Your task to perform on an android device: turn notification dots off Image 0: 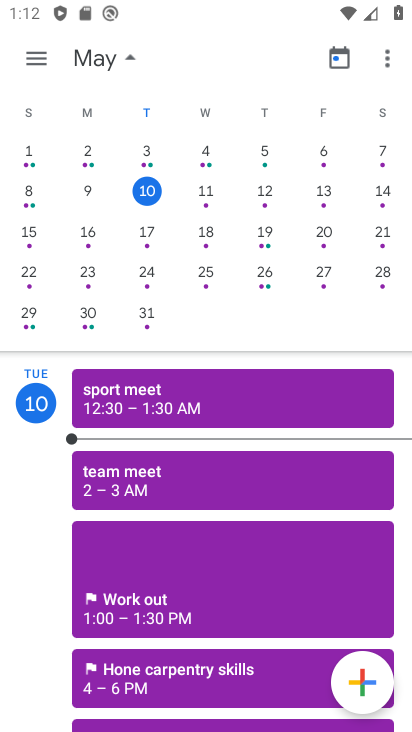
Step 0: press home button
Your task to perform on an android device: turn notification dots off Image 1: 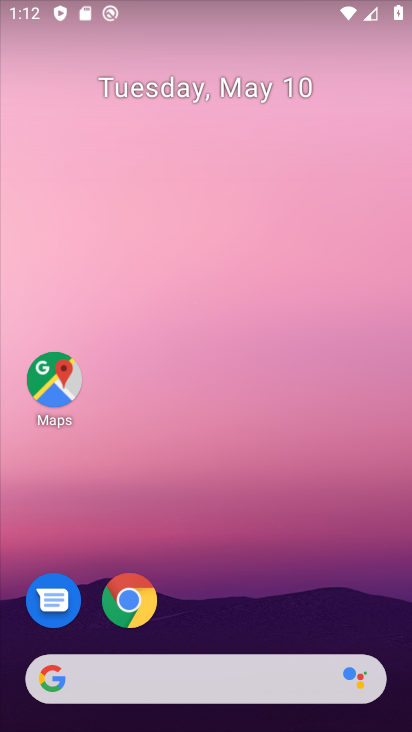
Step 1: drag from (327, 514) to (327, 113)
Your task to perform on an android device: turn notification dots off Image 2: 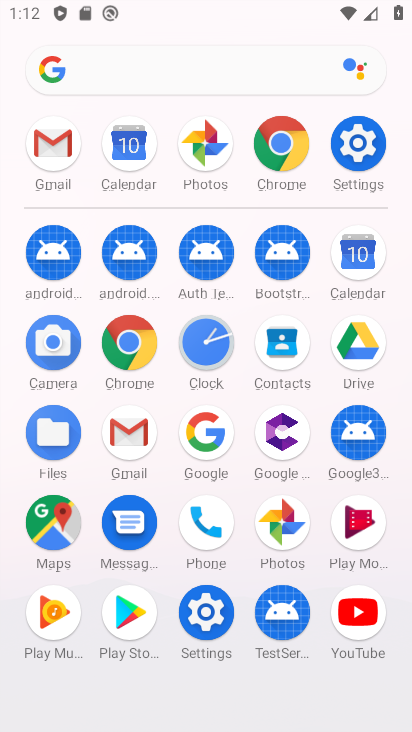
Step 2: click (346, 162)
Your task to perform on an android device: turn notification dots off Image 3: 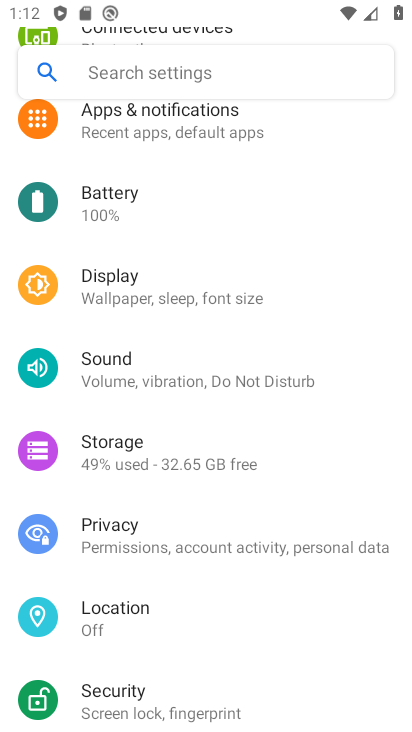
Step 3: drag from (294, 248) to (271, 511)
Your task to perform on an android device: turn notification dots off Image 4: 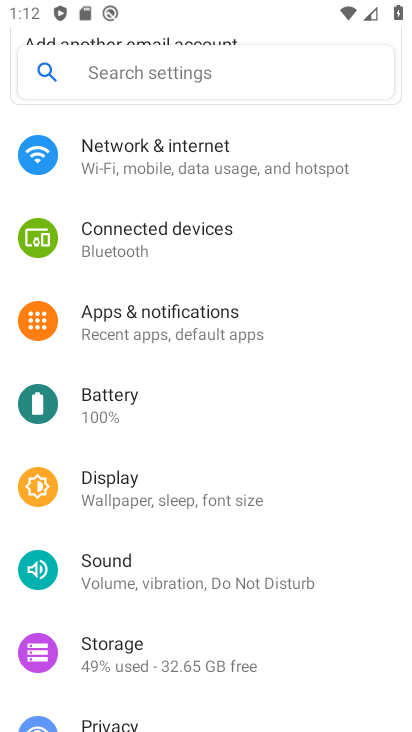
Step 4: click (242, 314)
Your task to perform on an android device: turn notification dots off Image 5: 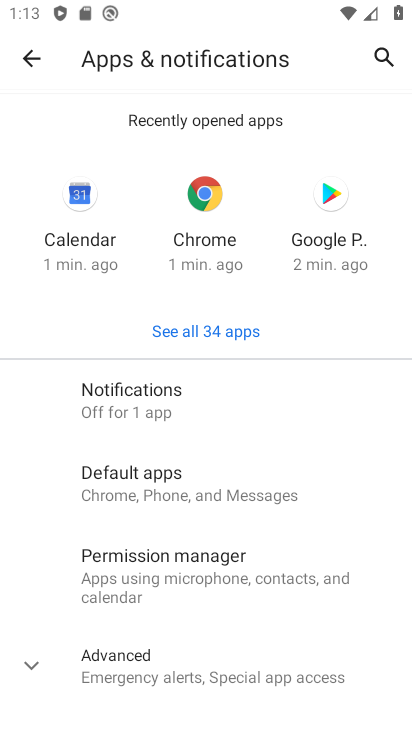
Step 5: drag from (252, 622) to (285, 358)
Your task to perform on an android device: turn notification dots off Image 6: 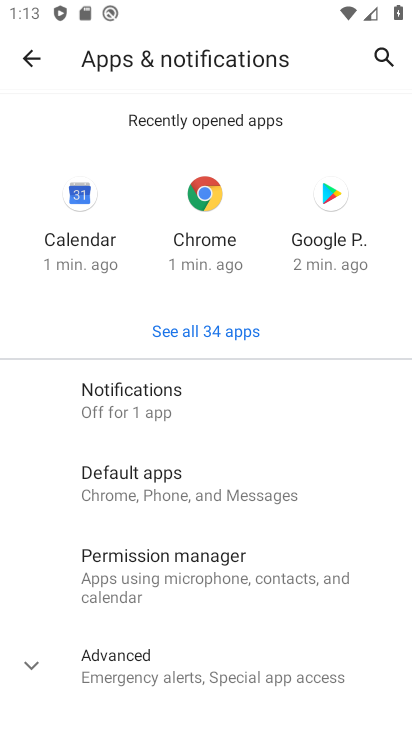
Step 6: click (254, 406)
Your task to perform on an android device: turn notification dots off Image 7: 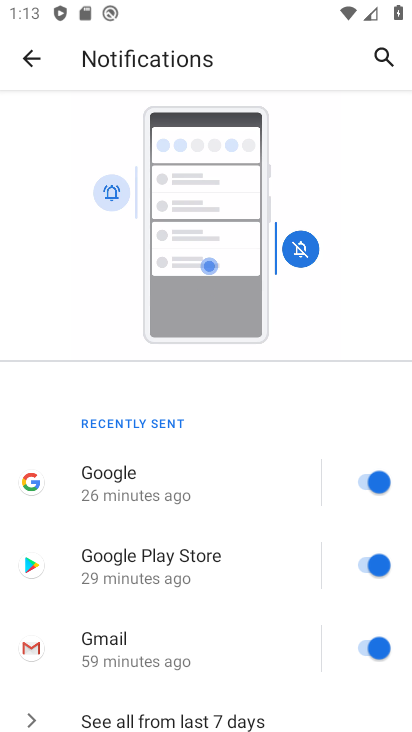
Step 7: drag from (257, 593) to (287, 208)
Your task to perform on an android device: turn notification dots off Image 8: 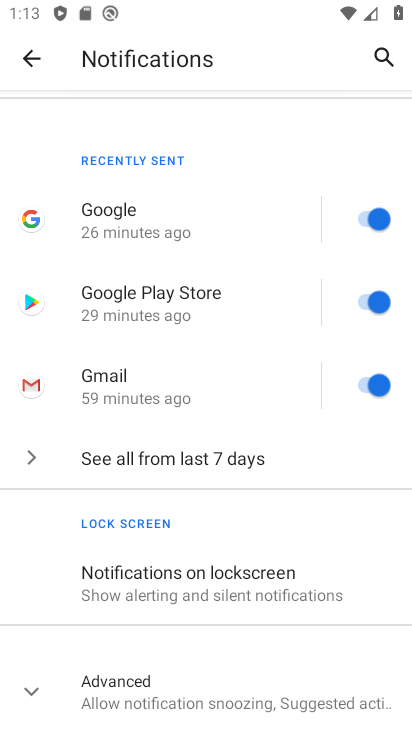
Step 8: drag from (247, 638) to (285, 255)
Your task to perform on an android device: turn notification dots off Image 9: 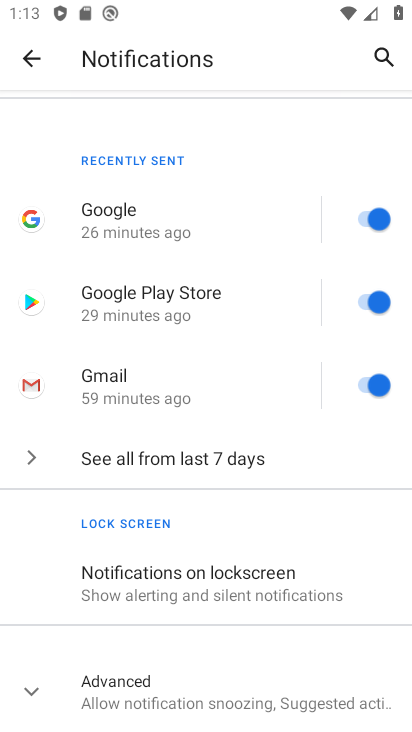
Step 9: click (223, 682)
Your task to perform on an android device: turn notification dots off Image 10: 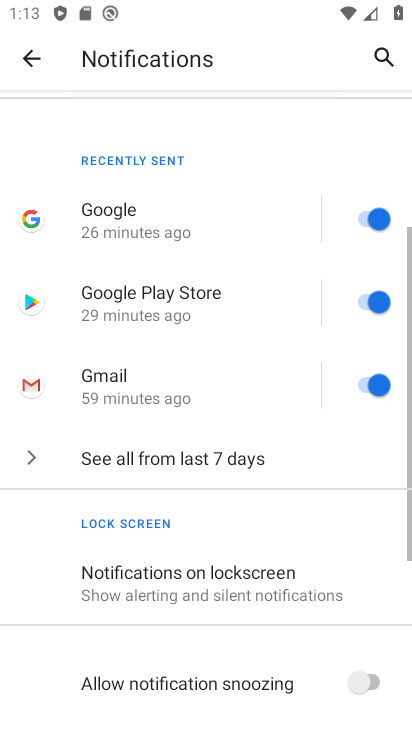
Step 10: task complete